Your task to perform on an android device: Find coffee shops on Maps Image 0: 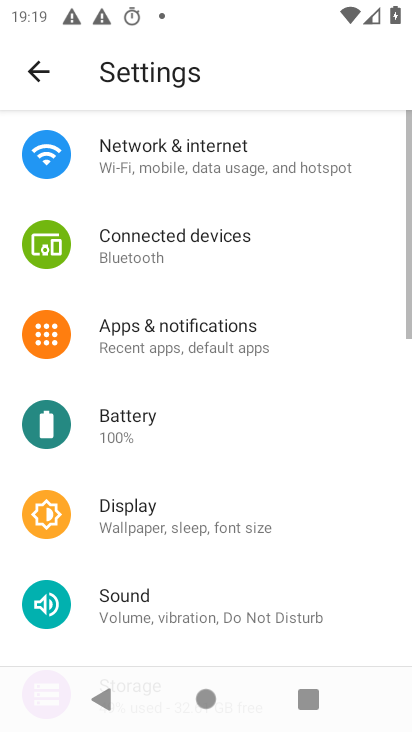
Step 0: press home button
Your task to perform on an android device: Find coffee shops on Maps Image 1: 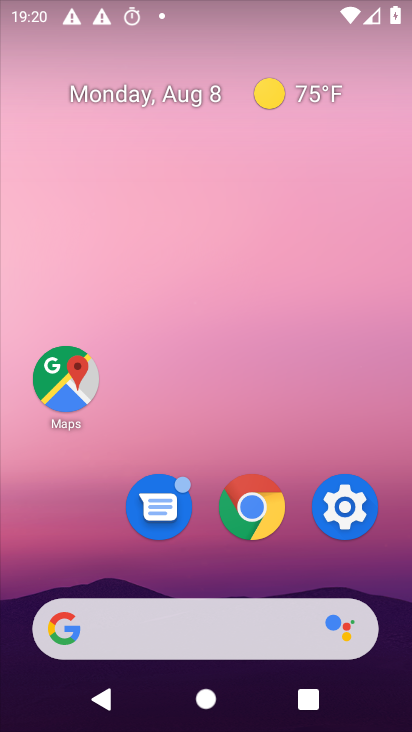
Step 1: drag from (271, 658) to (224, 147)
Your task to perform on an android device: Find coffee shops on Maps Image 2: 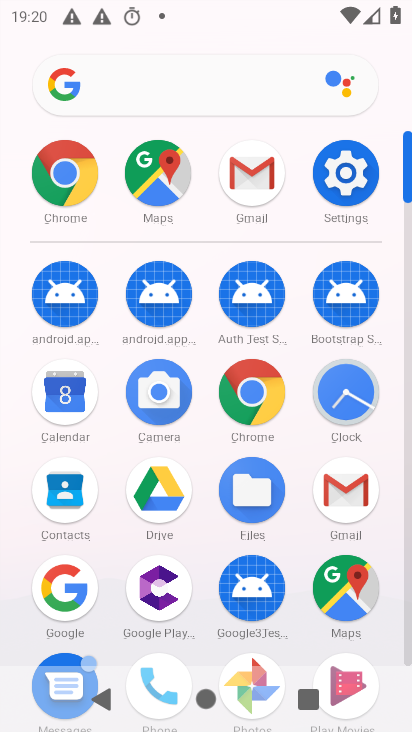
Step 2: click (166, 154)
Your task to perform on an android device: Find coffee shops on Maps Image 3: 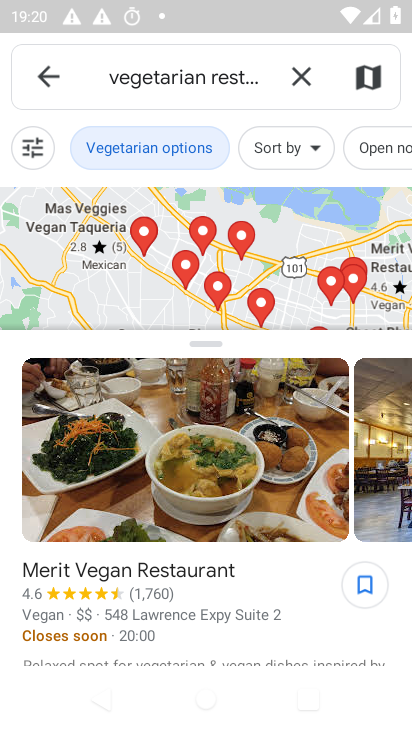
Step 3: click (35, 77)
Your task to perform on an android device: Find coffee shops on Maps Image 4: 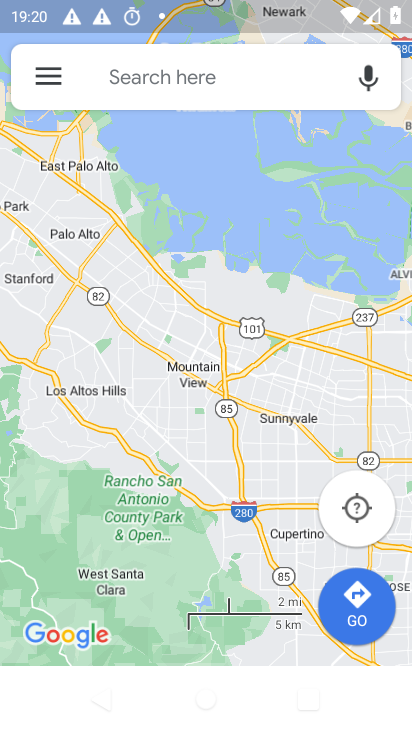
Step 4: click (131, 75)
Your task to perform on an android device: Find coffee shops on Maps Image 5: 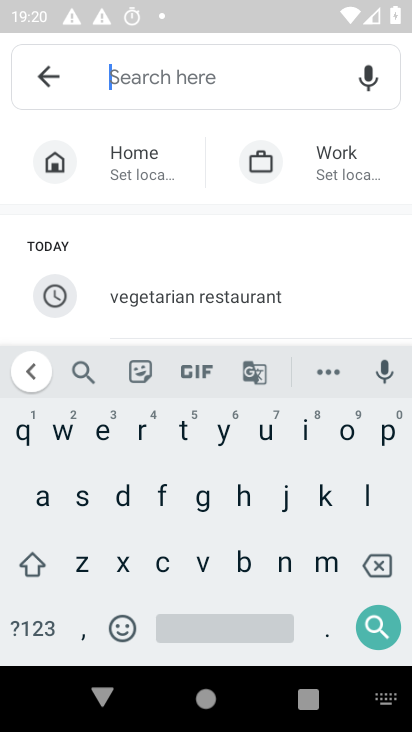
Step 5: click (151, 573)
Your task to perform on an android device: Find coffee shops on Maps Image 6: 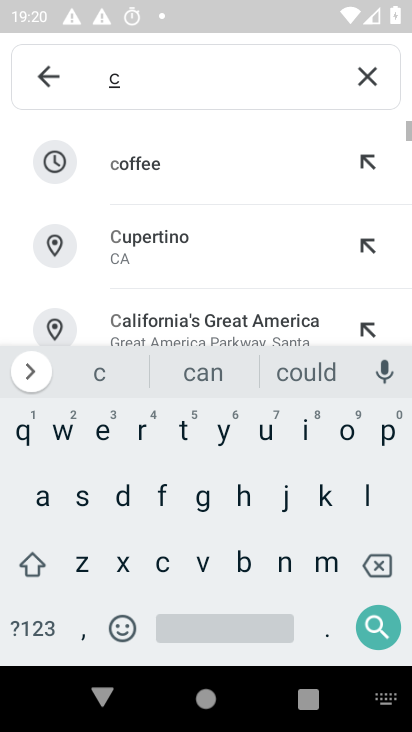
Step 6: click (157, 163)
Your task to perform on an android device: Find coffee shops on Maps Image 7: 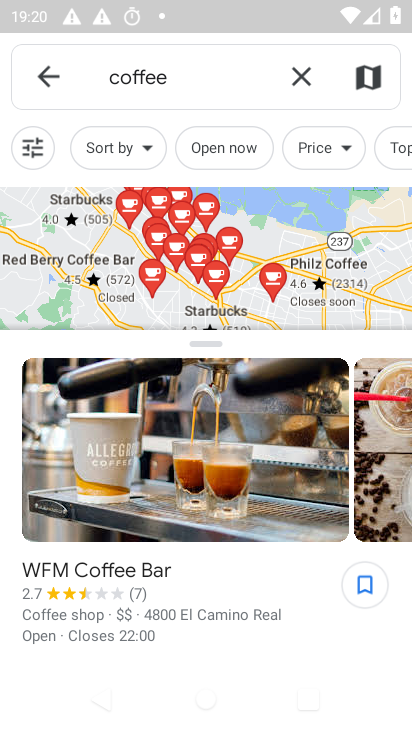
Step 7: task complete